Your task to perform on an android device: turn off smart reply in the gmail app Image 0: 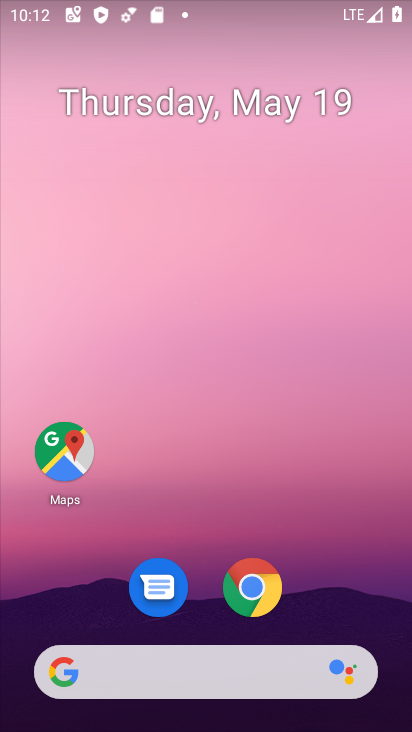
Step 0: drag from (199, 627) to (260, 161)
Your task to perform on an android device: turn off smart reply in the gmail app Image 1: 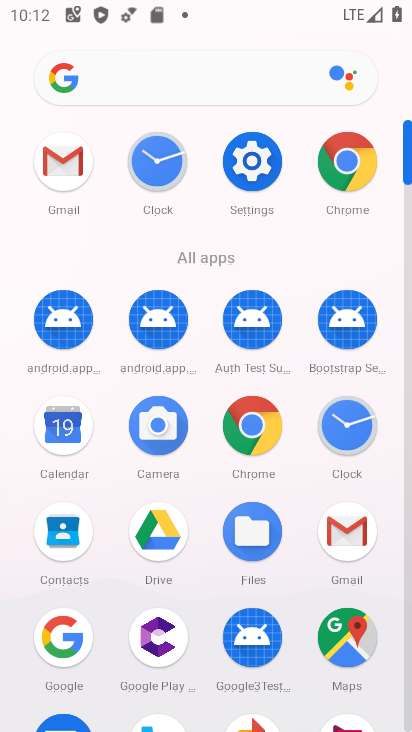
Step 1: click (60, 168)
Your task to perform on an android device: turn off smart reply in the gmail app Image 2: 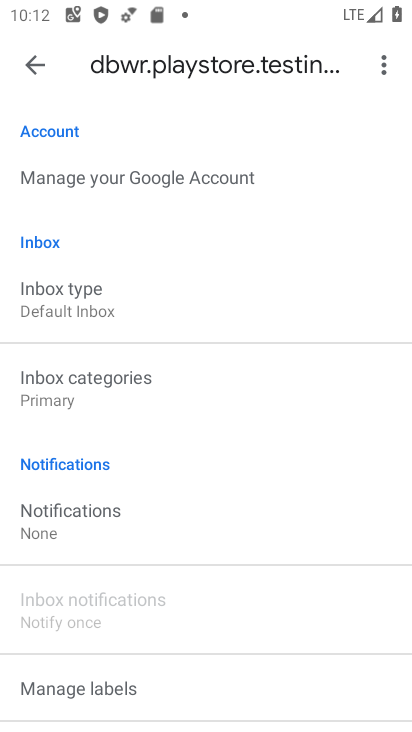
Step 2: drag from (144, 589) to (181, 222)
Your task to perform on an android device: turn off smart reply in the gmail app Image 3: 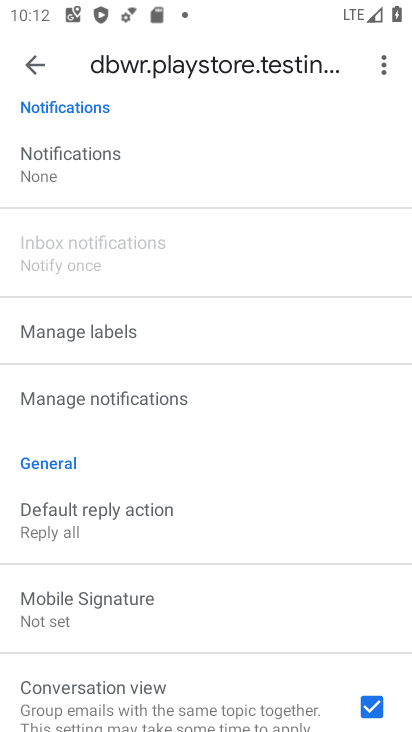
Step 3: drag from (200, 638) to (248, 200)
Your task to perform on an android device: turn off smart reply in the gmail app Image 4: 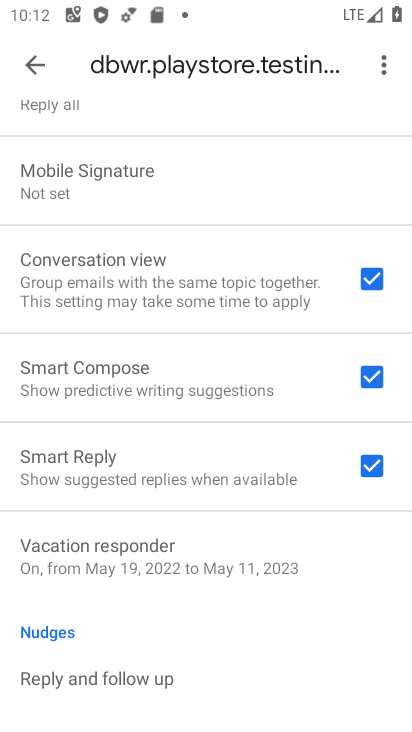
Step 4: click (376, 469)
Your task to perform on an android device: turn off smart reply in the gmail app Image 5: 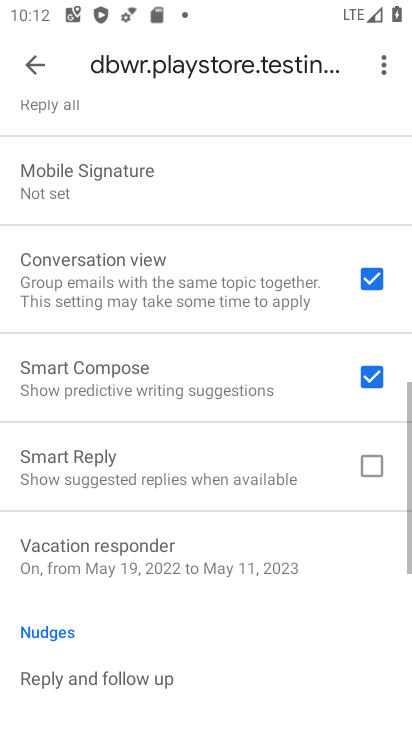
Step 5: task complete